Your task to perform on an android device: open app "Etsy: Buy & Sell Unique Items" Image 0: 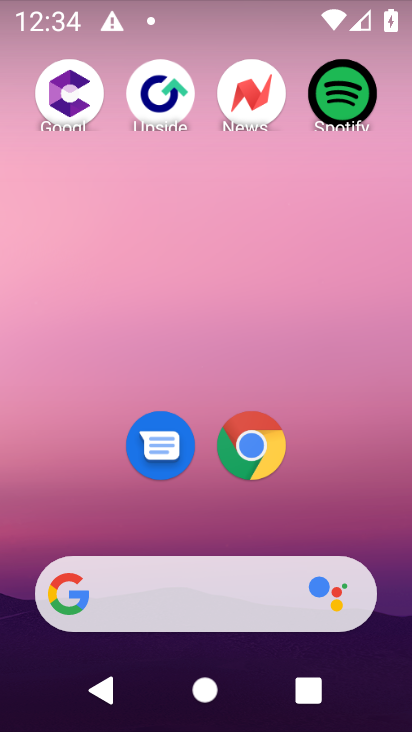
Step 0: drag from (379, 520) to (347, 228)
Your task to perform on an android device: open app "Etsy: Buy & Sell Unique Items" Image 1: 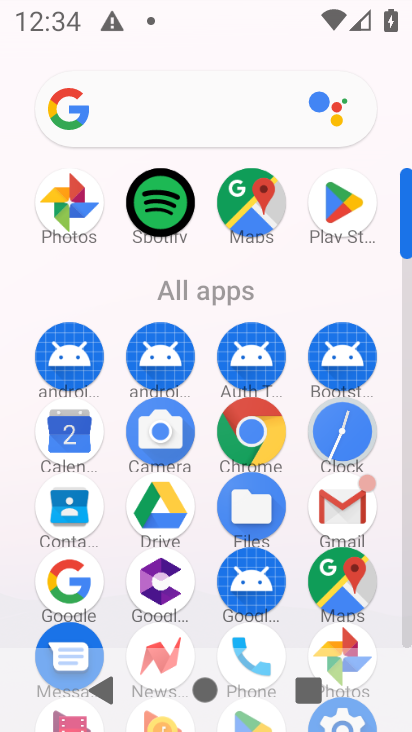
Step 1: click (326, 234)
Your task to perform on an android device: open app "Etsy: Buy & Sell Unique Items" Image 2: 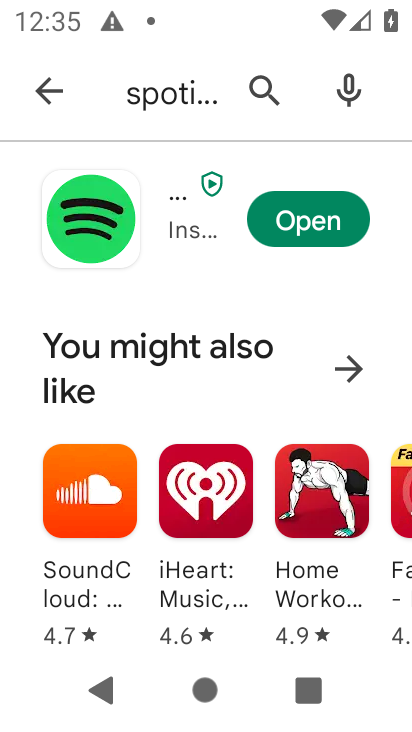
Step 2: click (262, 97)
Your task to perform on an android device: open app "Etsy: Buy & Sell Unique Items" Image 3: 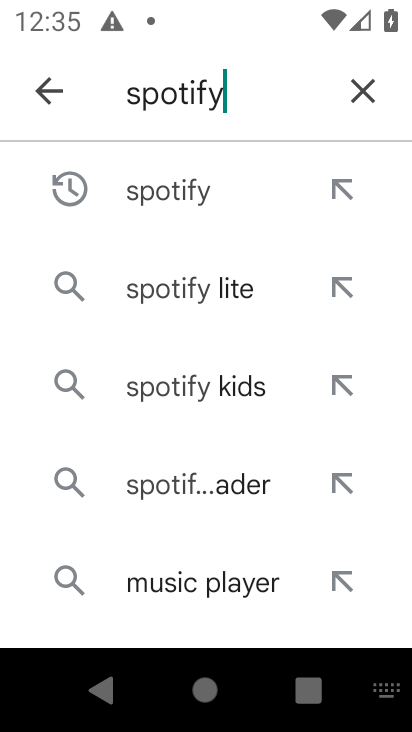
Step 3: click (354, 98)
Your task to perform on an android device: open app "Etsy: Buy & Sell Unique Items" Image 4: 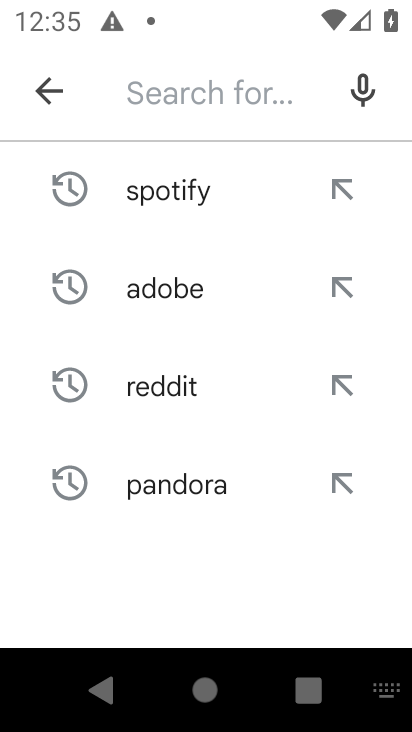
Step 4: type "etsy"
Your task to perform on an android device: open app "Etsy: Buy & Sell Unique Items" Image 5: 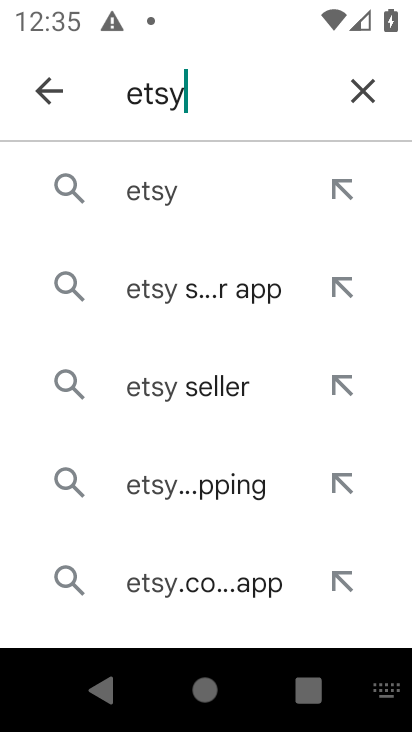
Step 5: click (231, 173)
Your task to perform on an android device: open app "Etsy: Buy & Sell Unique Items" Image 6: 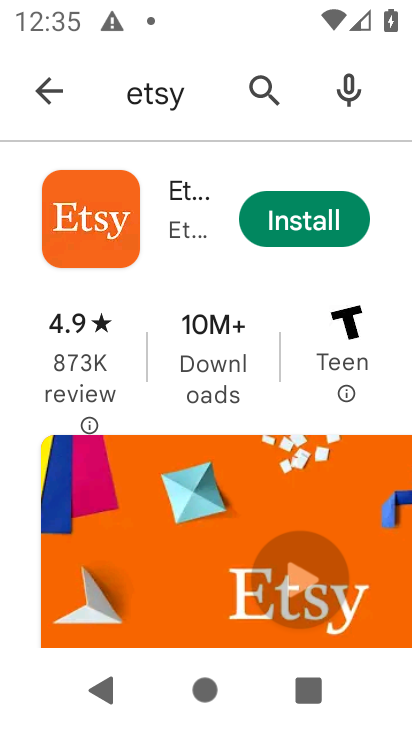
Step 6: task complete